Your task to perform on an android device: turn on data saver in the chrome app Image 0: 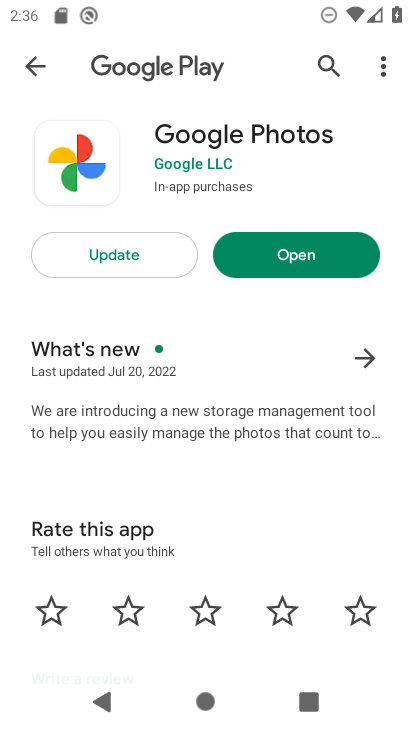
Step 0: press home button
Your task to perform on an android device: turn on data saver in the chrome app Image 1: 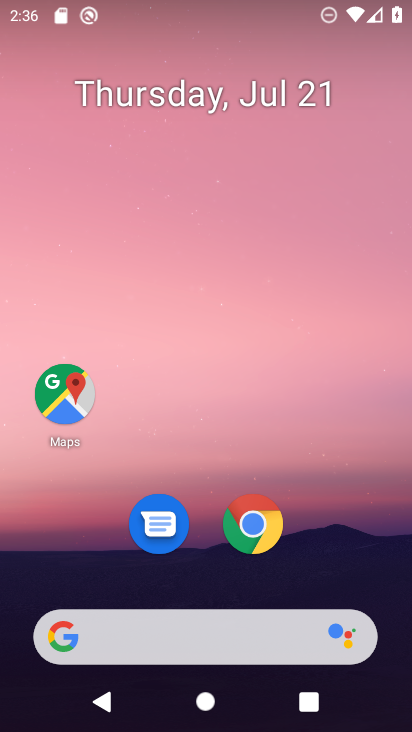
Step 1: click (249, 531)
Your task to perform on an android device: turn on data saver in the chrome app Image 2: 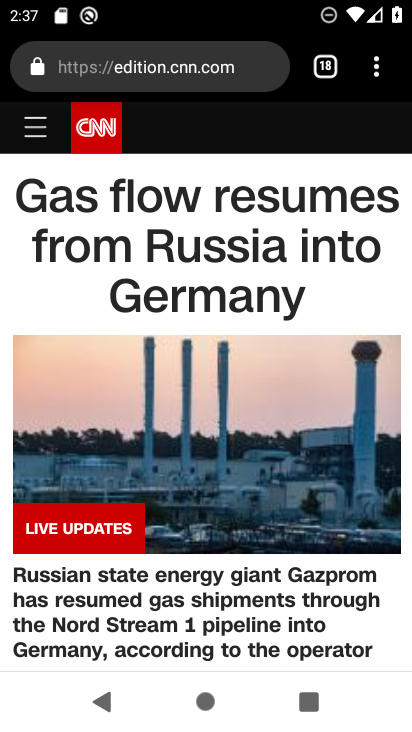
Step 2: drag from (377, 66) to (182, 530)
Your task to perform on an android device: turn on data saver in the chrome app Image 3: 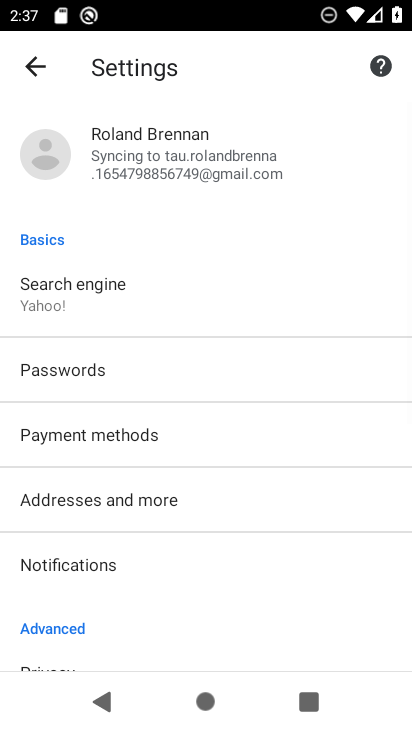
Step 3: drag from (176, 620) to (322, 63)
Your task to perform on an android device: turn on data saver in the chrome app Image 4: 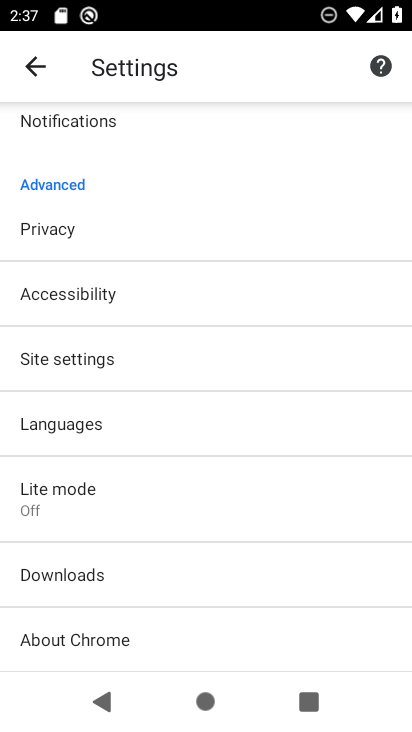
Step 4: click (100, 492)
Your task to perform on an android device: turn on data saver in the chrome app Image 5: 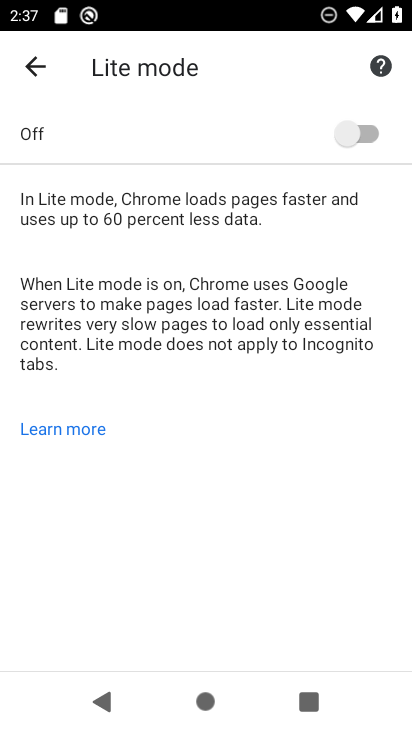
Step 5: click (365, 129)
Your task to perform on an android device: turn on data saver in the chrome app Image 6: 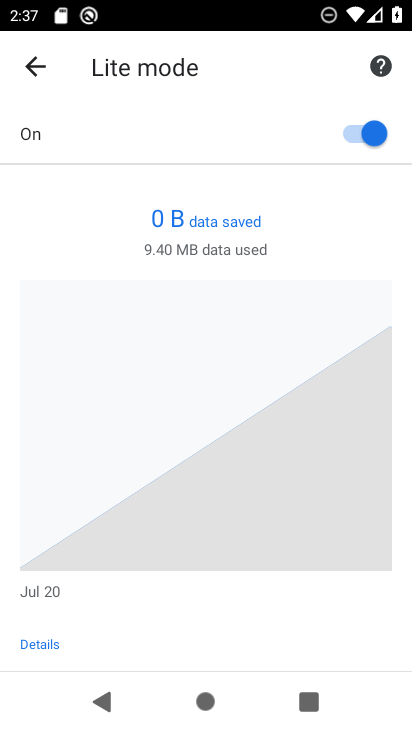
Step 6: task complete